Your task to perform on an android device: When is my next appointment? Image 0: 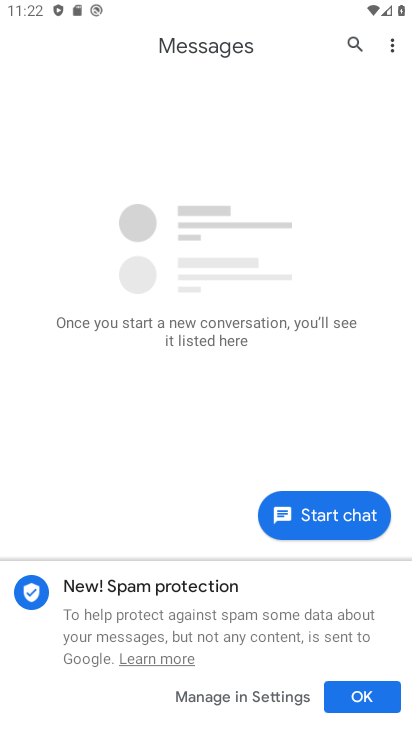
Step 0: press back button
Your task to perform on an android device: When is my next appointment? Image 1: 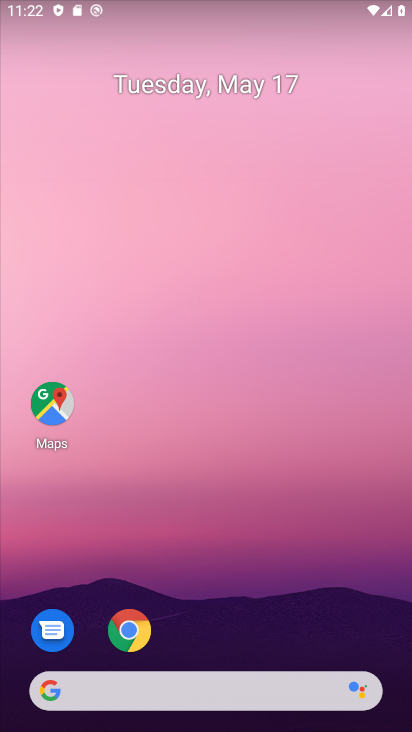
Step 1: drag from (173, 556) to (265, 64)
Your task to perform on an android device: When is my next appointment? Image 2: 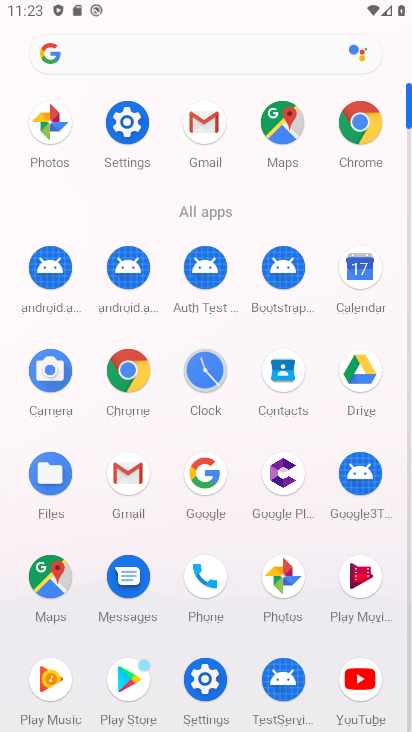
Step 2: click (363, 259)
Your task to perform on an android device: When is my next appointment? Image 3: 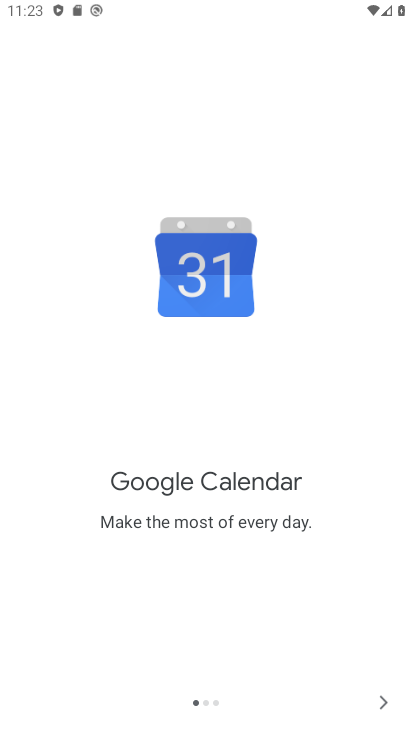
Step 3: click (379, 705)
Your task to perform on an android device: When is my next appointment? Image 4: 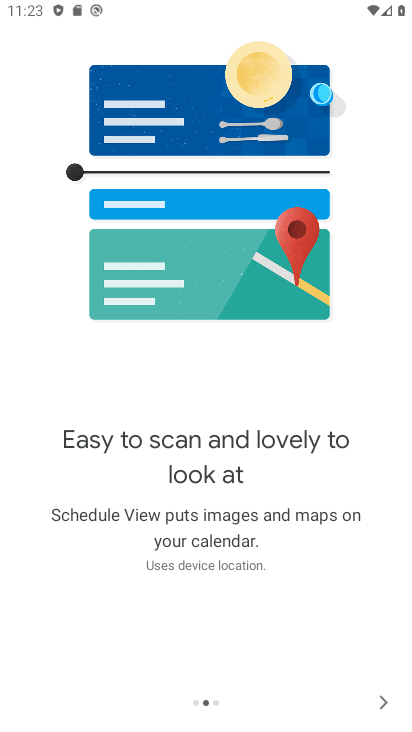
Step 4: click (388, 702)
Your task to perform on an android device: When is my next appointment? Image 5: 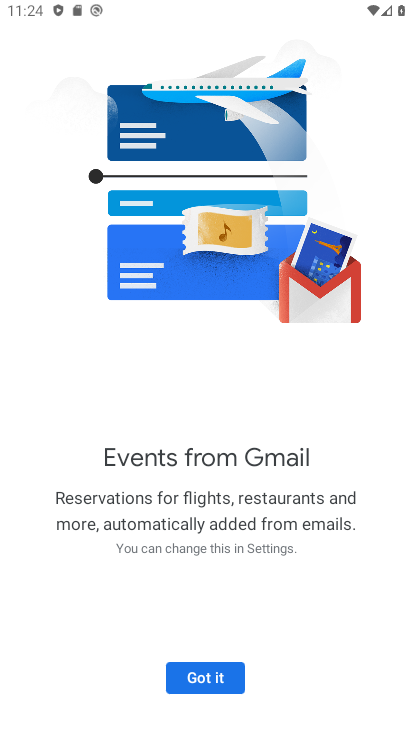
Step 5: click (198, 688)
Your task to perform on an android device: When is my next appointment? Image 6: 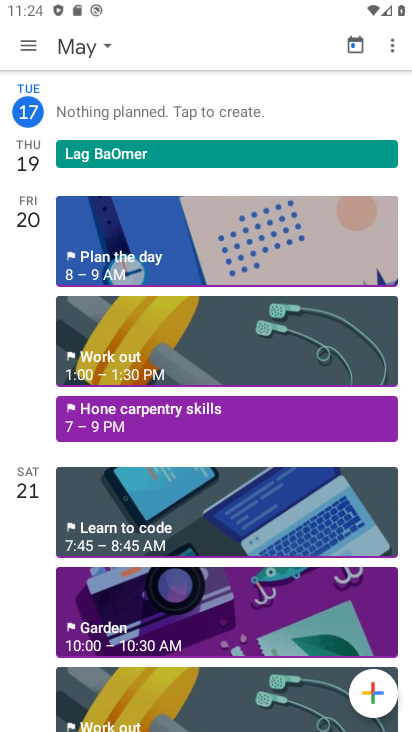
Step 6: task complete